Your task to perform on an android device: Show me the alarms in the clock app Image 0: 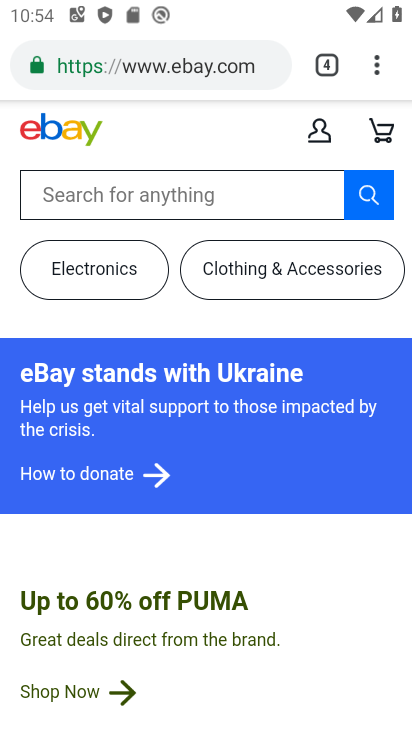
Step 0: press home button
Your task to perform on an android device: Show me the alarms in the clock app Image 1: 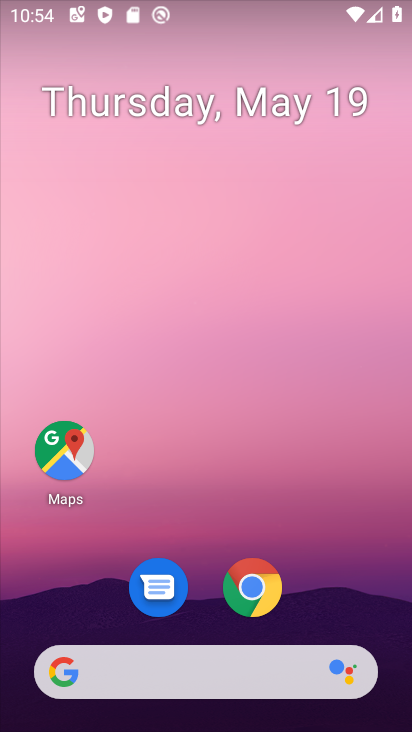
Step 1: drag from (188, 657) to (145, 160)
Your task to perform on an android device: Show me the alarms in the clock app Image 2: 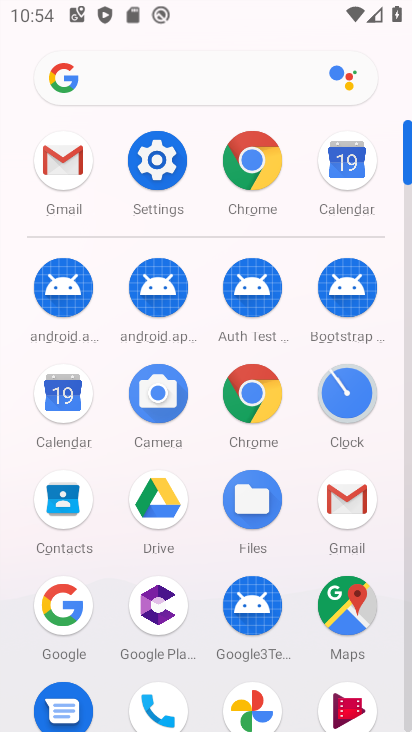
Step 2: click (335, 382)
Your task to perform on an android device: Show me the alarms in the clock app Image 3: 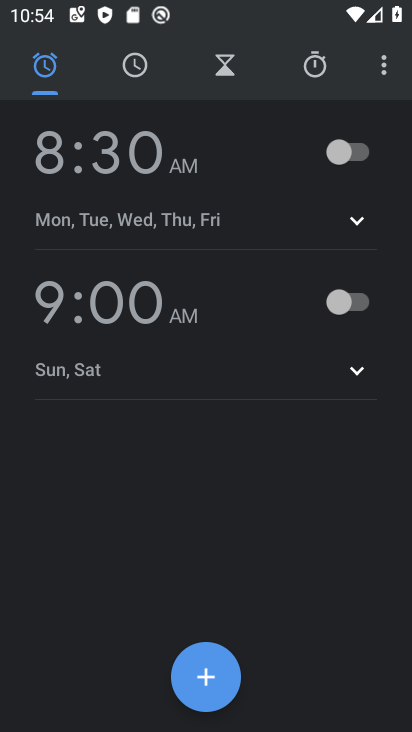
Step 3: task complete